Your task to perform on an android device: Open Chrome and go to settings Image 0: 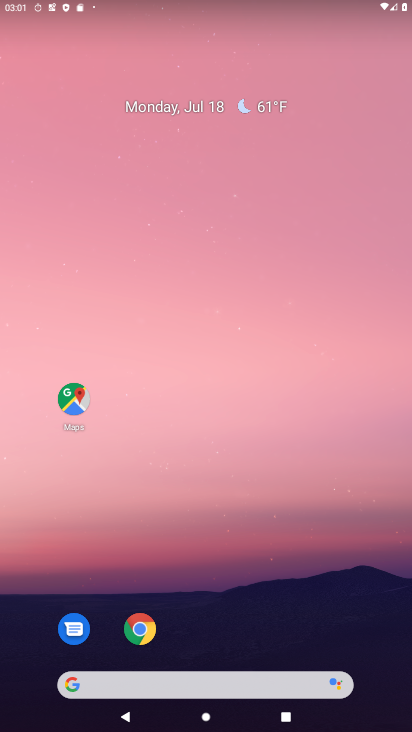
Step 0: click (140, 629)
Your task to perform on an android device: Open Chrome and go to settings Image 1: 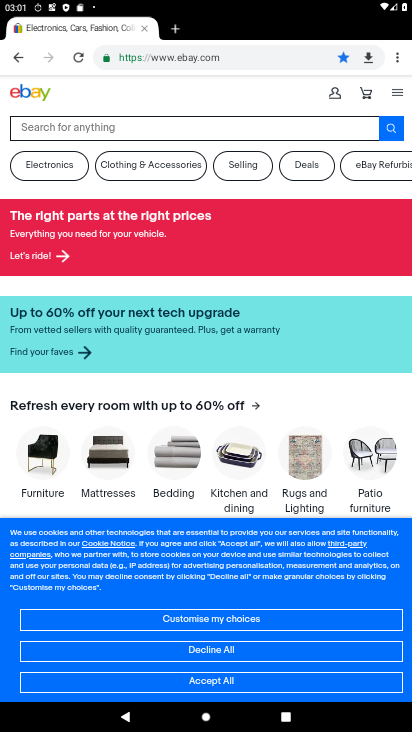
Step 1: click (396, 57)
Your task to perform on an android device: Open Chrome and go to settings Image 2: 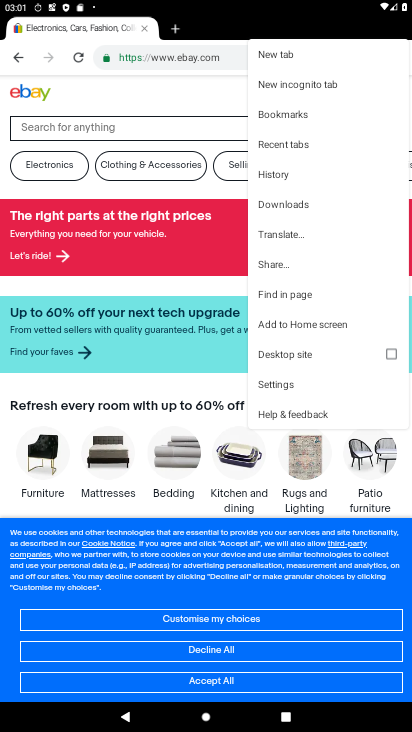
Step 2: click (279, 385)
Your task to perform on an android device: Open Chrome and go to settings Image 3: 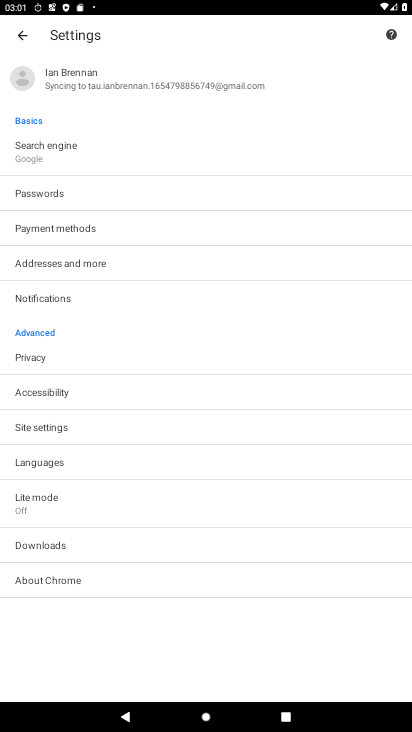
Step 3: task complete